Your task to perform on an android device: allow notifications from all sites in the chrome app Image 0: 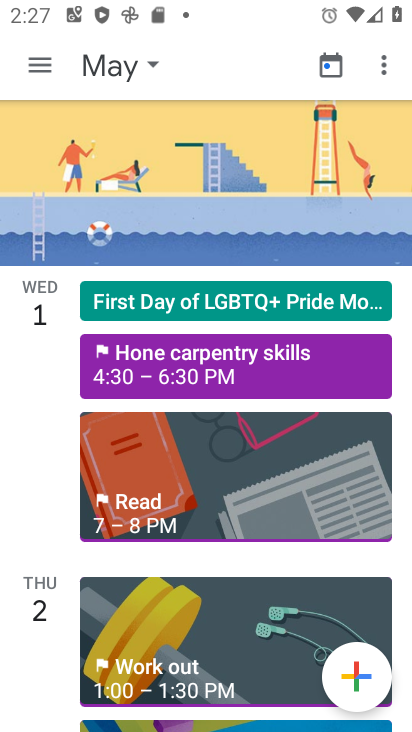
Step 0: drag from (162, 708) to (150, 152)
Your task to perform on an android device: allow notifications from all sites in the chrome app Image 1: 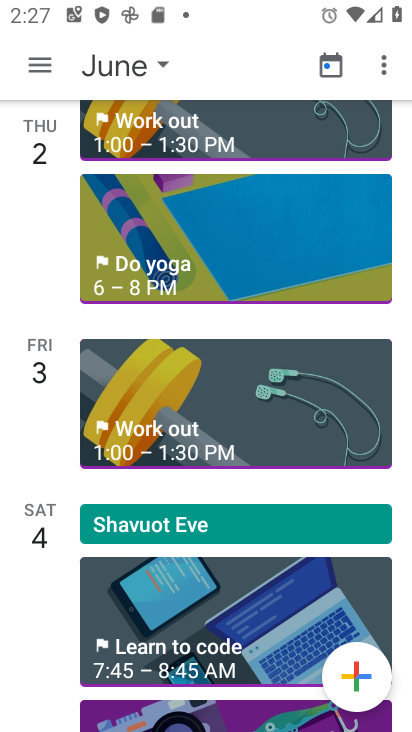
Step 1: press home button
Your task to perform on an android device: allow notifications from all sites in the chrome app Image 2: 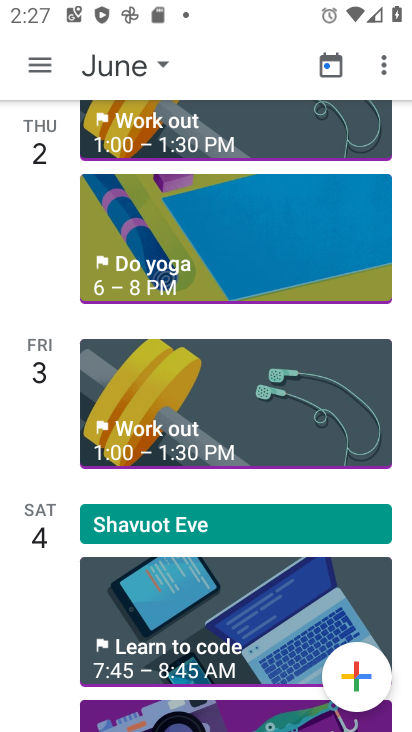
Step 2: press home button
Your task to perform on an android device: allow notifications from all sites in the chrome app Image 3: 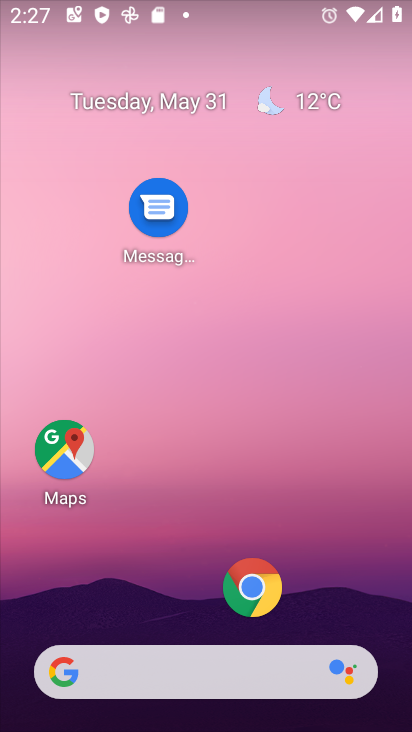
Step 3: drag from (169, 593) to (24, 2)
Your task to perform on an android device: allow notifications from all sites in the chrome app Image 4: 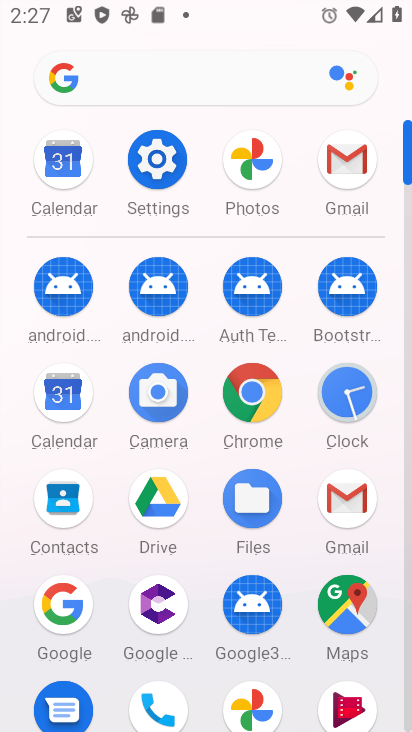
Step 4: click (244, 395)
Your task to perform on an android device: allow notifications from all sites in the chrome app Image 5: 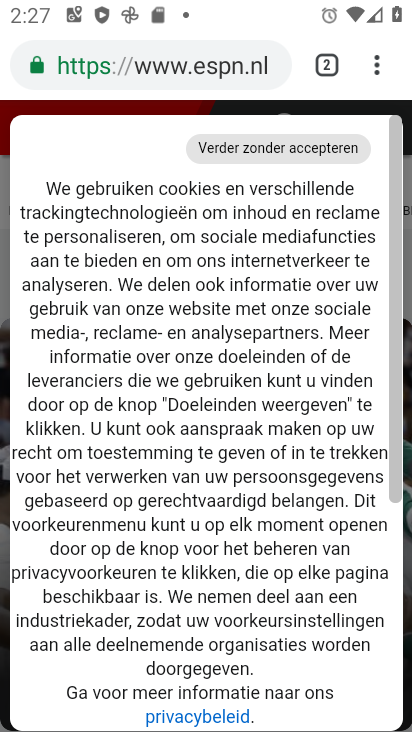
Step 5: click (373, 61)
Your task to perform on an android device: allow notifications from all sites in the chrome app Image 6: 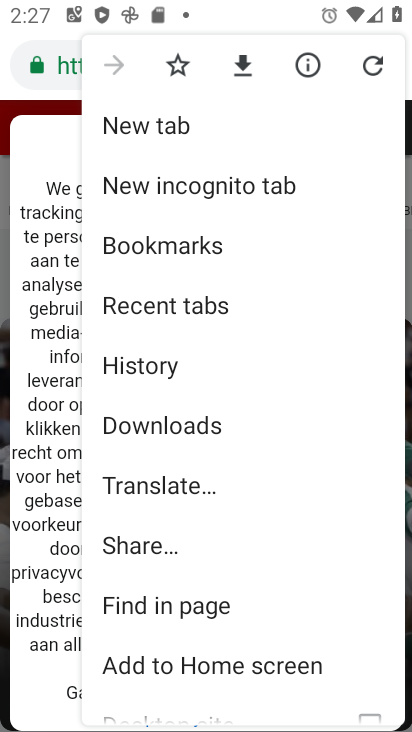
Step 6: drag from (227, 624) to (164, 285)
Your task to perform on an android device: allow notifications from all sites in the chrome app Image 7: 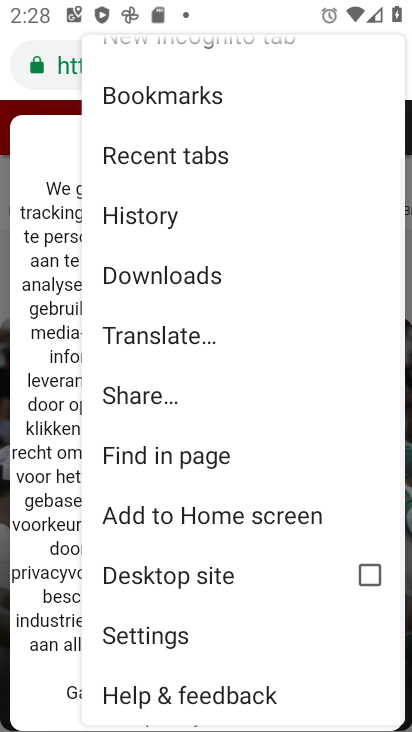
Step 7: click (228, 628)
Your task to perform on an android device: allow notifications from all sites in the chrome app Image 8: 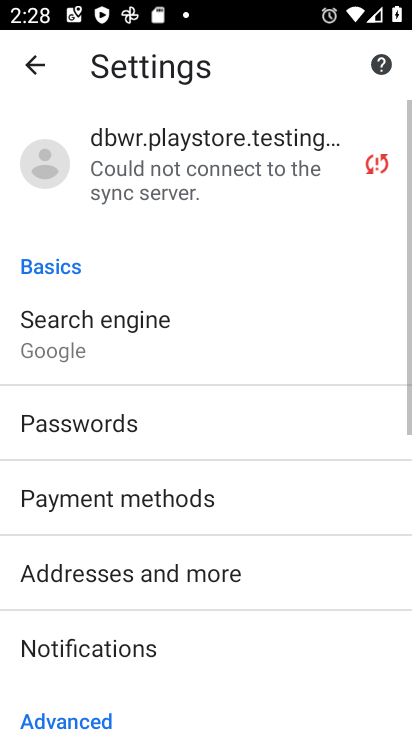
Step 8: drag from (235, 604) to (80, 264)
Your task to perform on an android device: allow notifications from all sites in the chrome app Image 9: 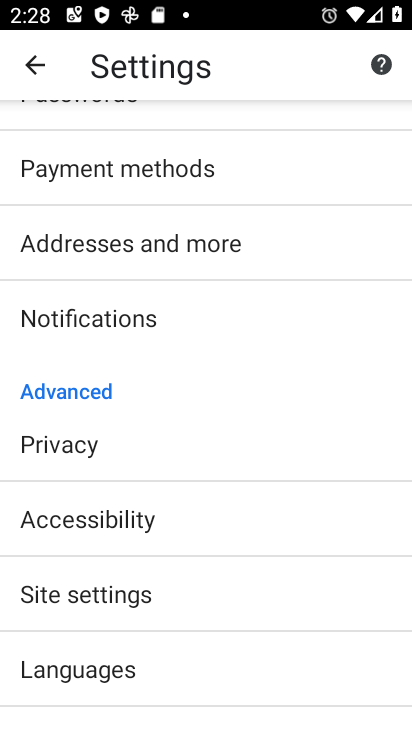
Step 9: click (170, 589)
Your task to perform on an android device: allow notifications from all sites in the chrome app Image 10: 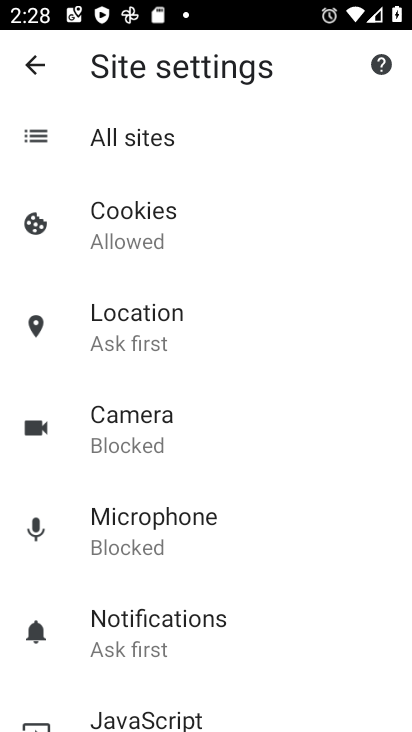
Step 10: click (212, 623)
Your task to perform on an android device: allow notifications from all sites in the chrome app Image 11: 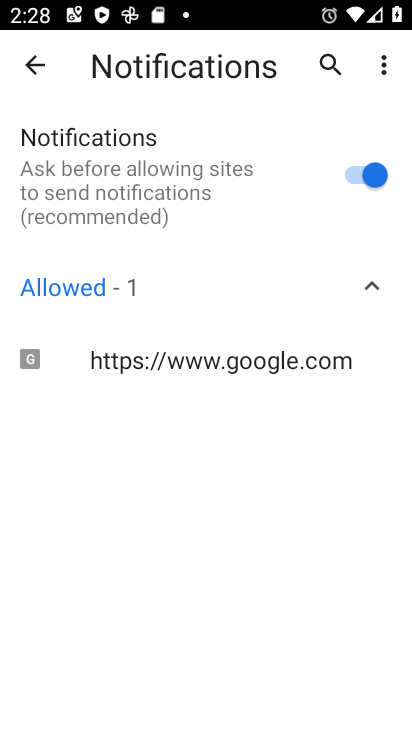
Step 11: task complete